Your task to perform on an android device: What's on my calendar tomorrow? Image 0: 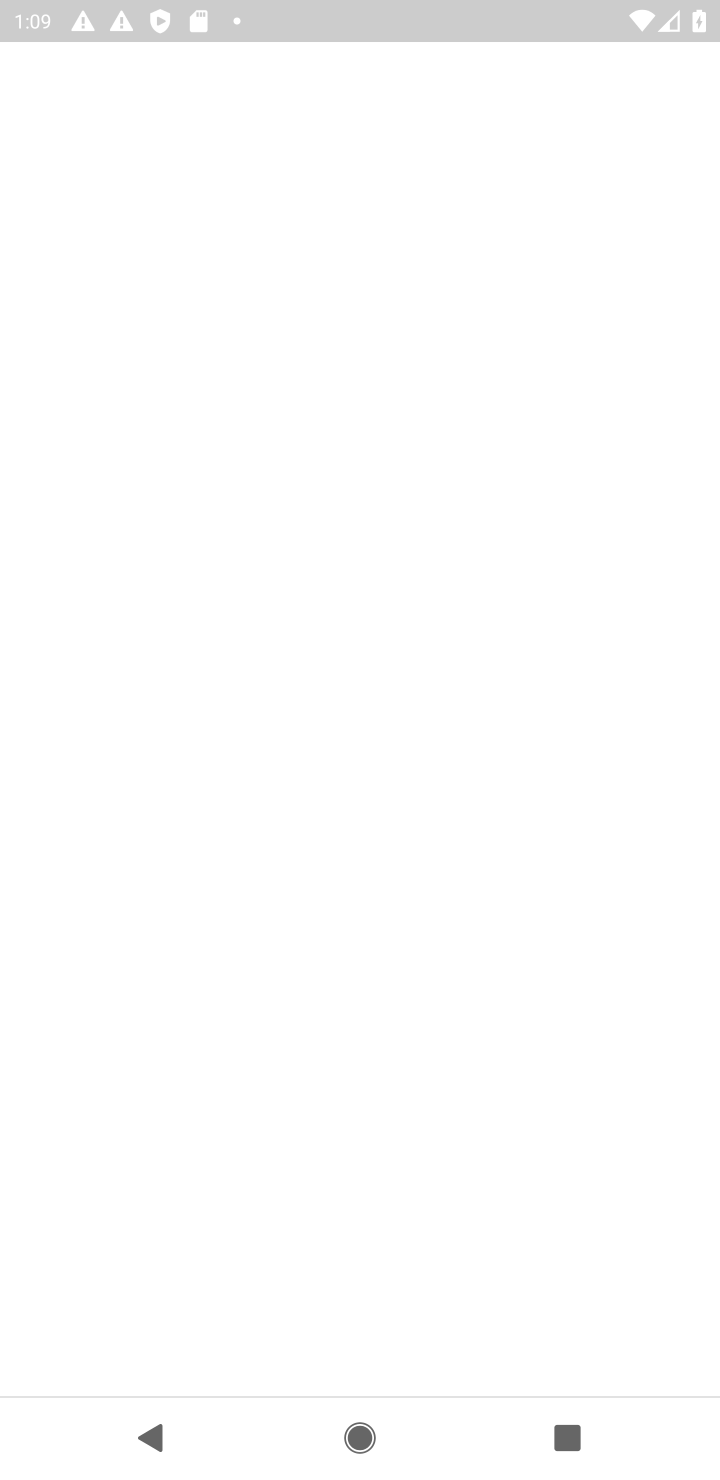
Step 0: press home button
Your task to perform on an android device: What's on my calendar tomorrow? Image 1: 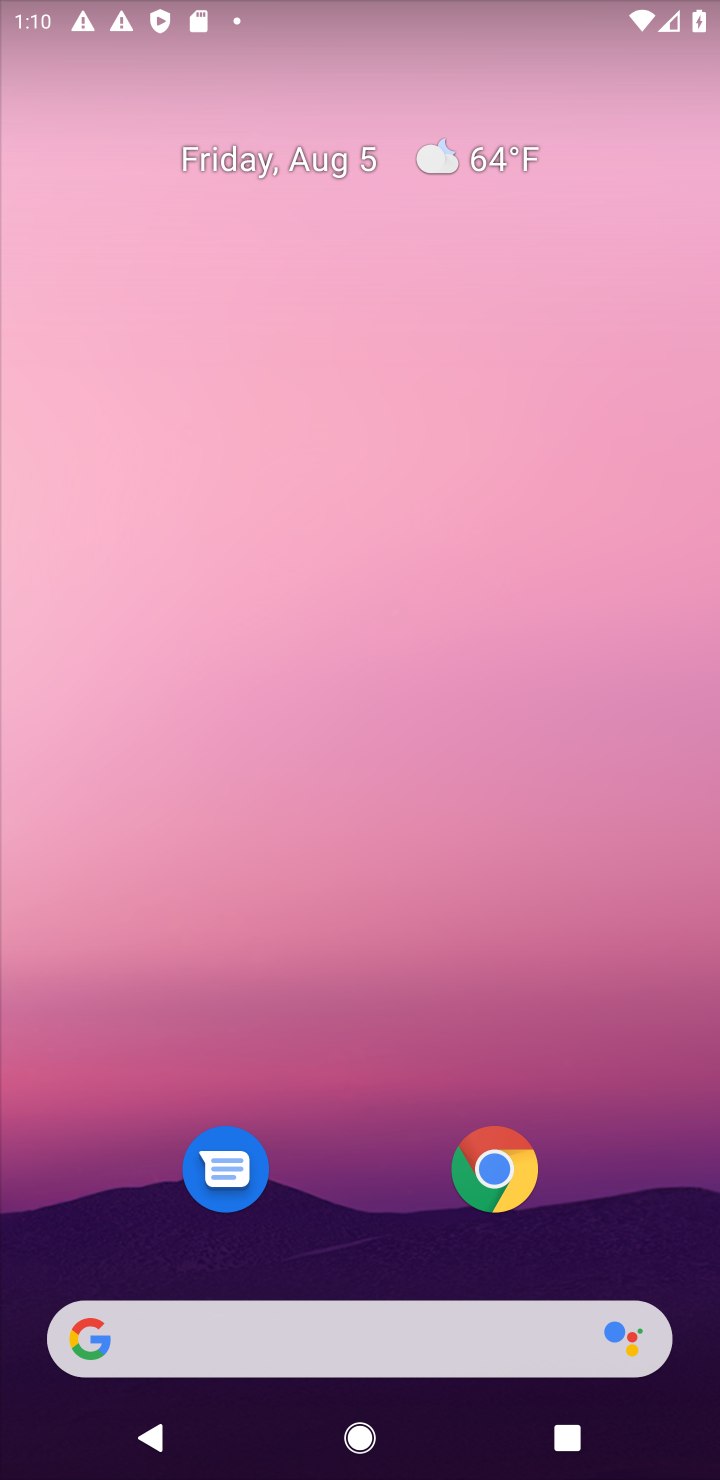
Step 1: drag from (345, 1054) to (345, 357)
Your task to perform on an android device: What's on my calendar tomorrow? Image 2: 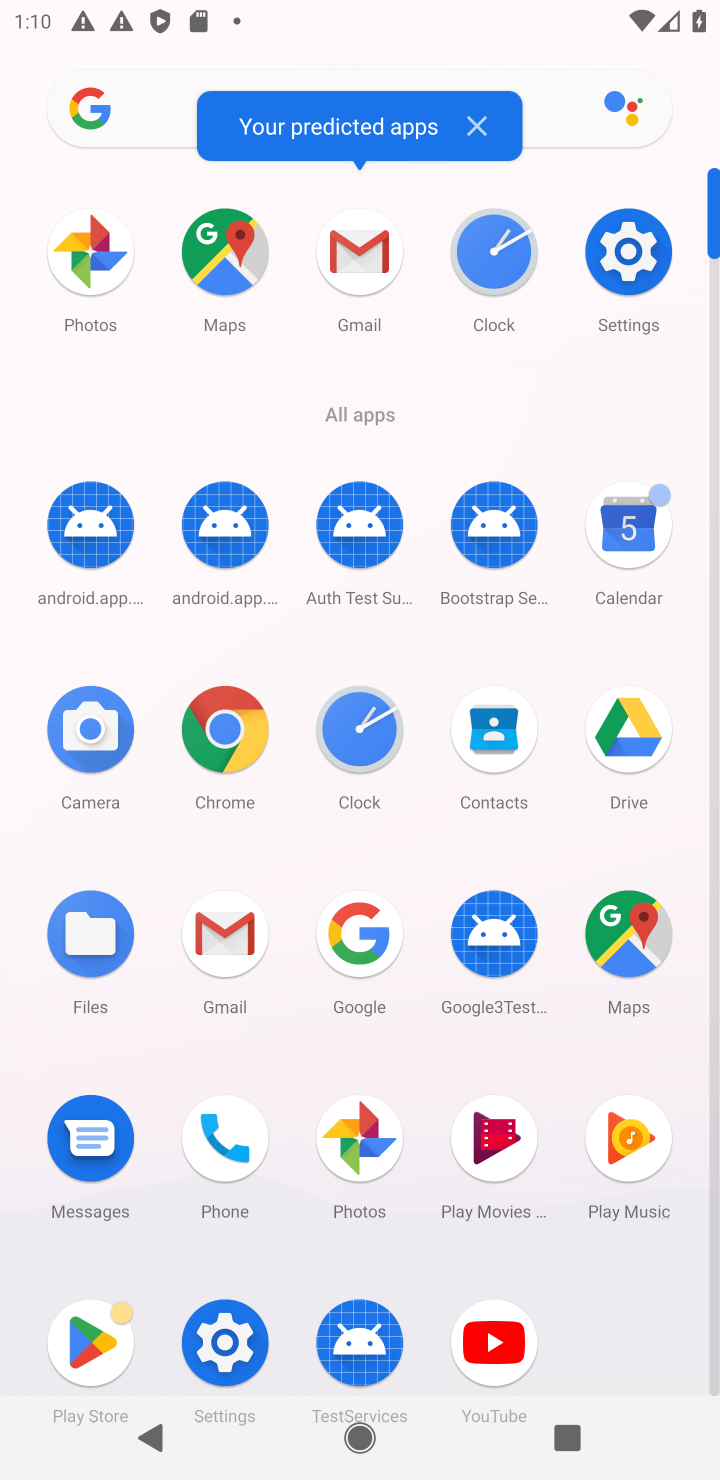
Step 2: click (640, 523)
Your task to perform on an android device: What's on my calendar tomorrow? Image 3: 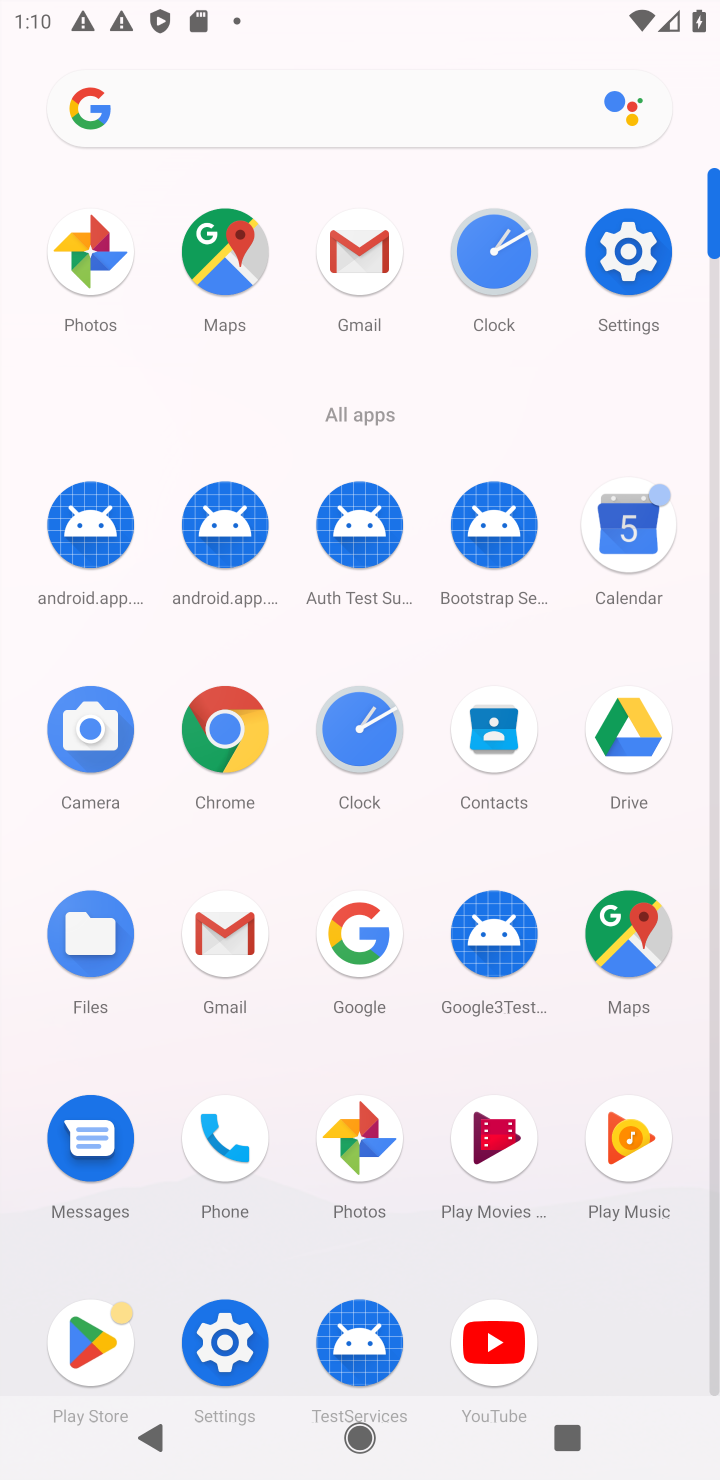
Step 3: click (660, 542)
Your task to perform on an android device: What's on my calendar tomorrow? Image 4: 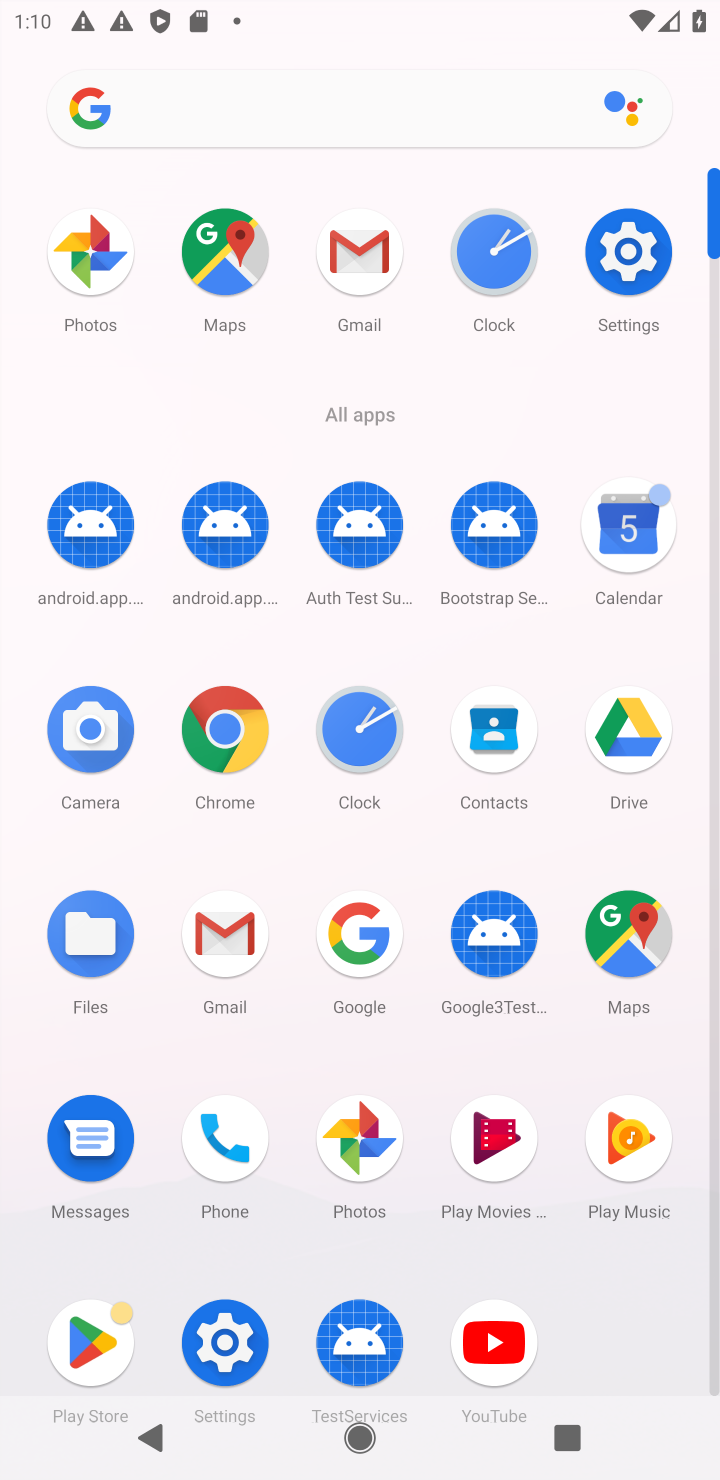
Step 4: click (610, 489)
Your task to perform on an android device: What's on my calendar tomorrow? Image 5: 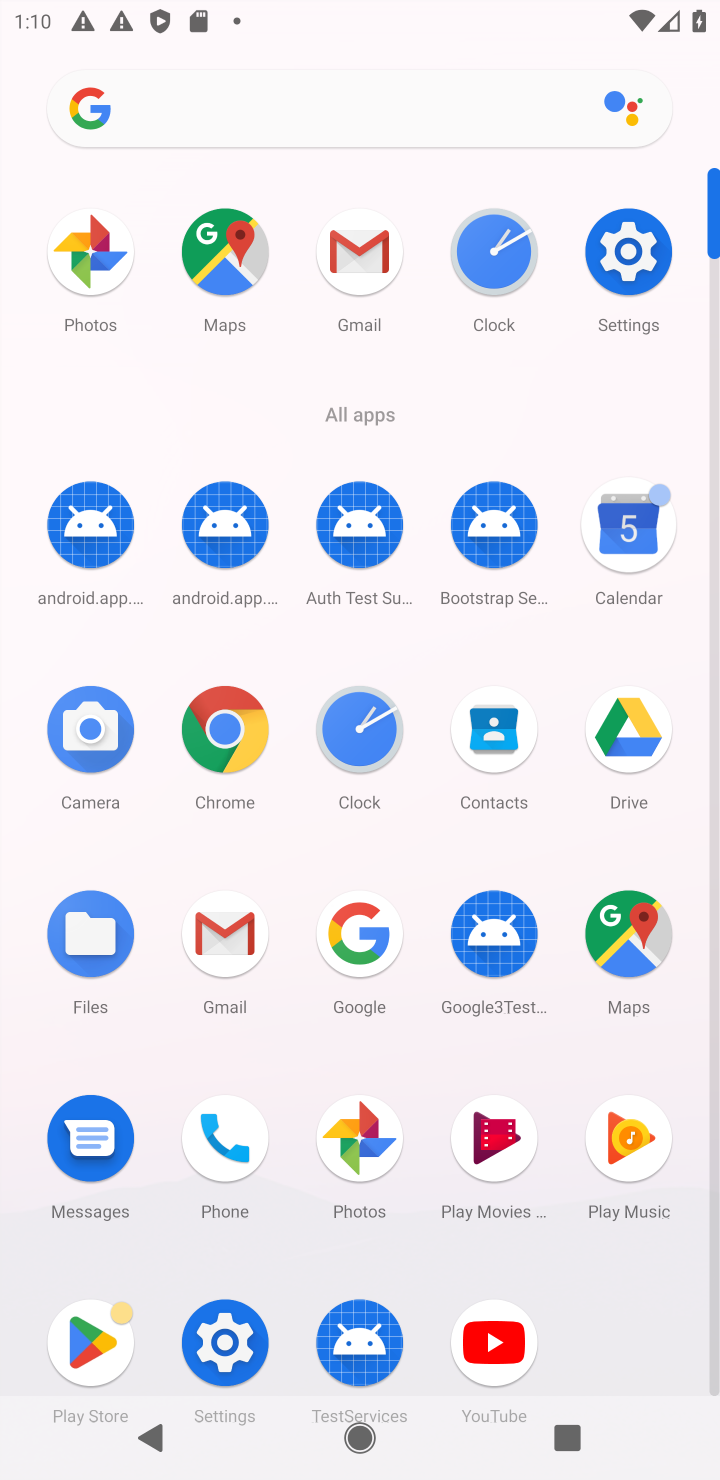
Step 5: click (643, 564)
Your task to perform on an android device: What's on my calendar tomorrow? Image 6: 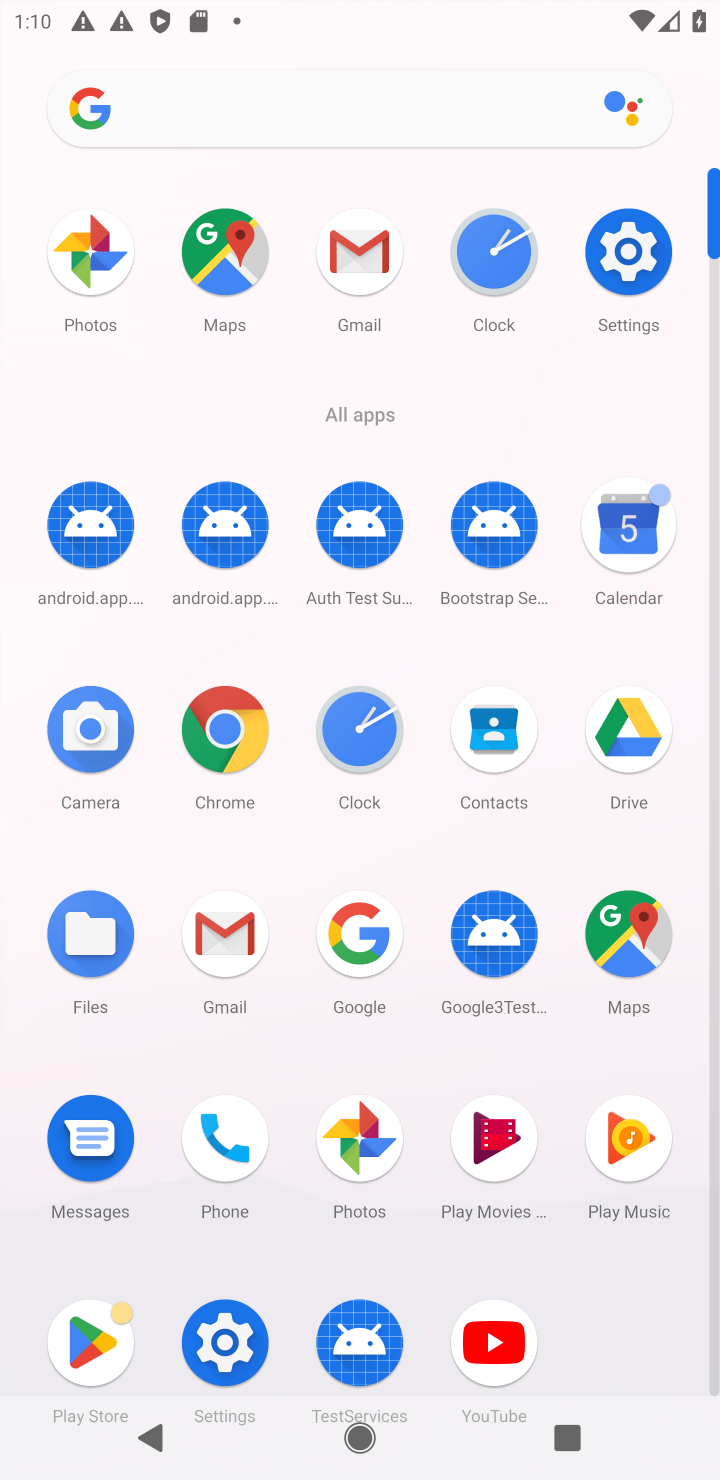
Step 6: task complete